Your task to perform on an android device: turn off translation in the chrome app Image 0: 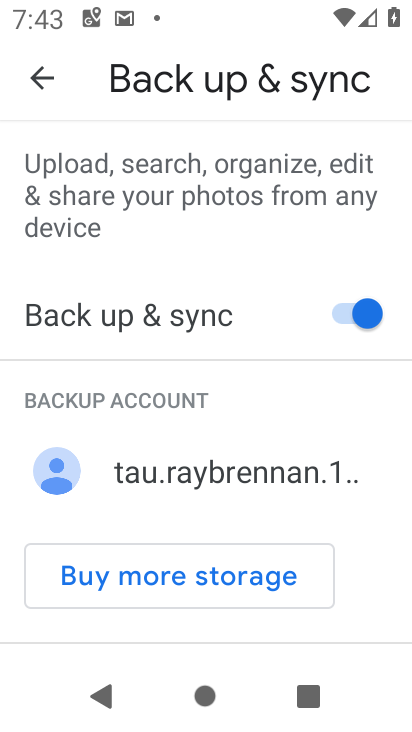
Step 0: press home button
Your task to perform on an android device: turn off translation in the chrome app Image 1: 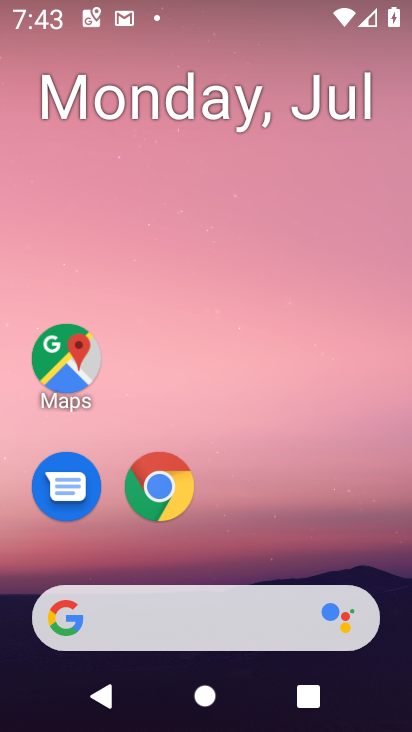
Step 1: drag from (385, 548) to (385, 126)
Your task to perform on an android device: turn off translation in the chrome app Image 2: 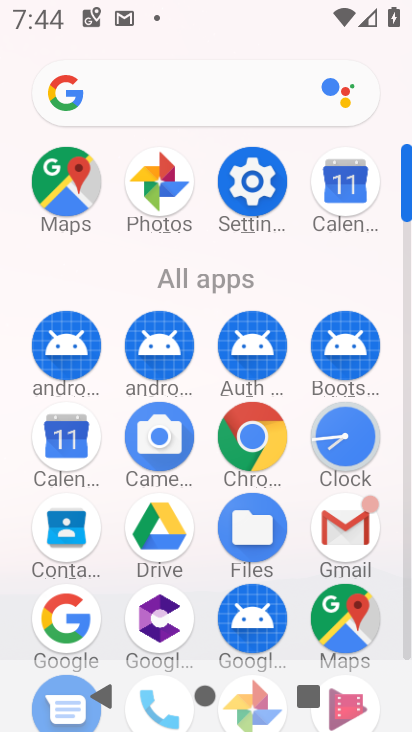
Step 2: click (255, 426)
Your task to perform on an android device: turn off translation in the chrome app Image 3: 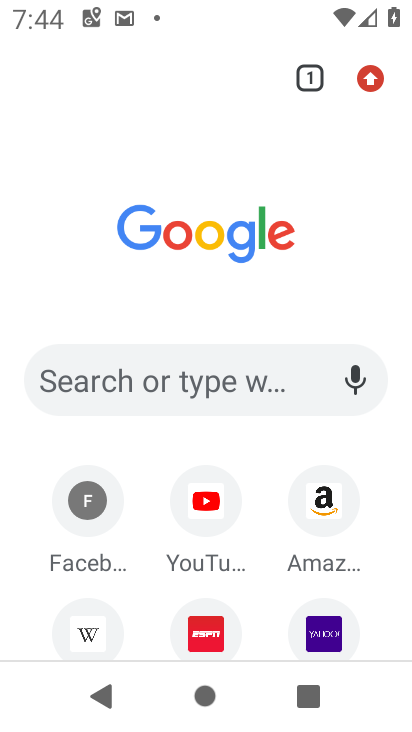
Step 3: click (367, 84)
Your task to perform on an android device: turn off translation in the chrome app Image 4: 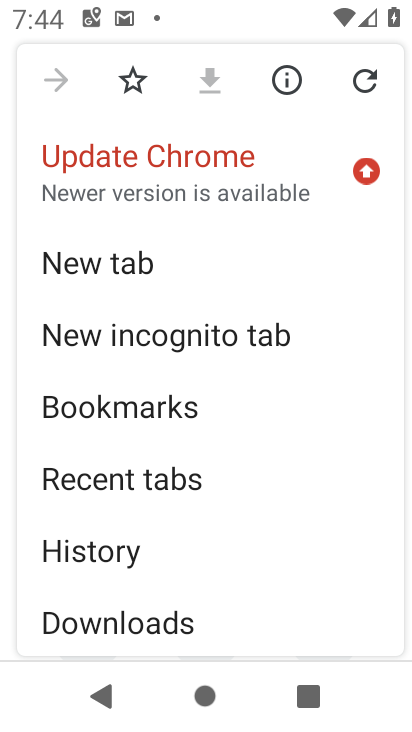
Step 4: drag from (336, 398) to (335, 324)
Your task to perform on an android device: turn off translation in the chrome app Image 5: 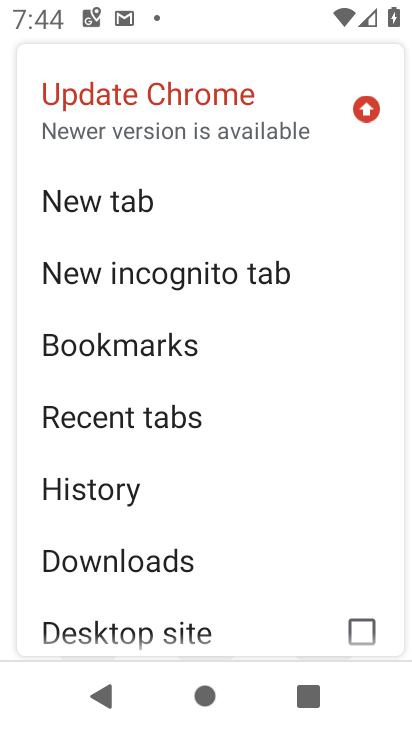
Step 5: drag from (327, 414) to (334, 313)
Your task to perform on an android device: turn off translation in the chrome app Image 6: 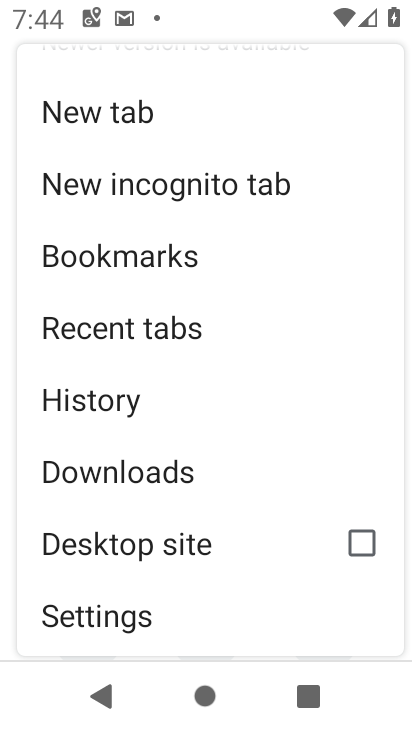
Step 6: drag from (326, 397) to (331, 264)
Your task to perform on an android device: turn off translation in the chrome app Image 7: 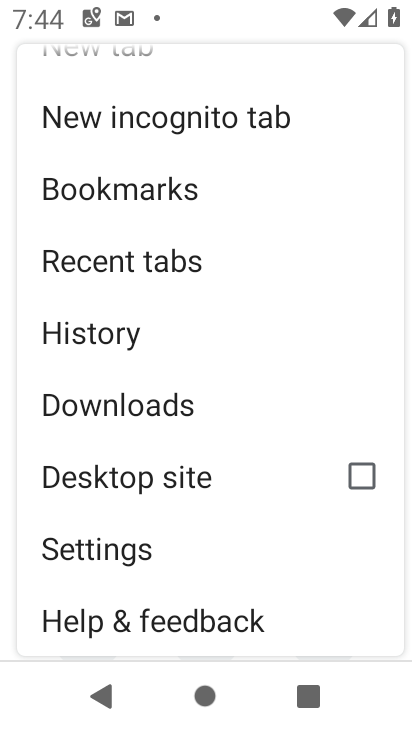
Step 7: click (271, 554)
Your task to perform on an android device: turn off translation in the chrome app Image 8: 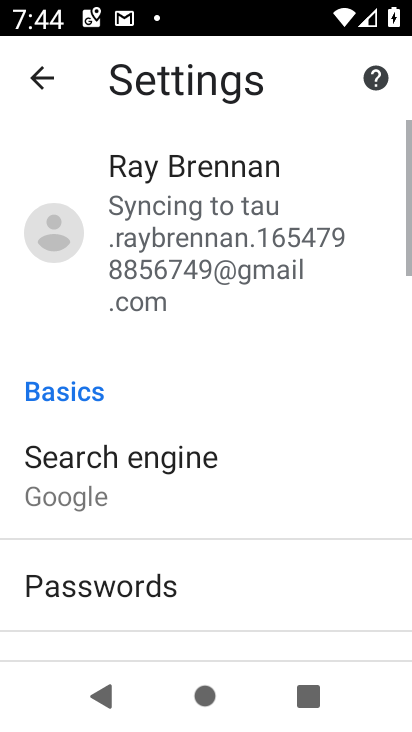
Step 8: drag from (290, 518) to (291, 457)
Your task to perform on an android device: turn off translation in the chrome app Image 9: 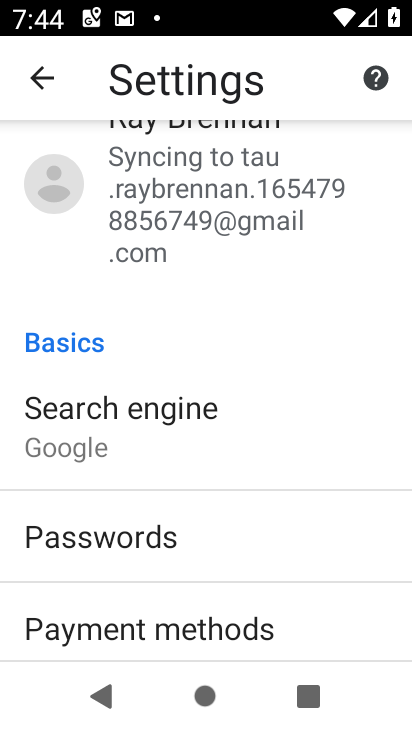
Step 9: drag from (303, 502) to (308, 425)
Your task to perform on an android device: turn off translation in the chrome app Image 10: 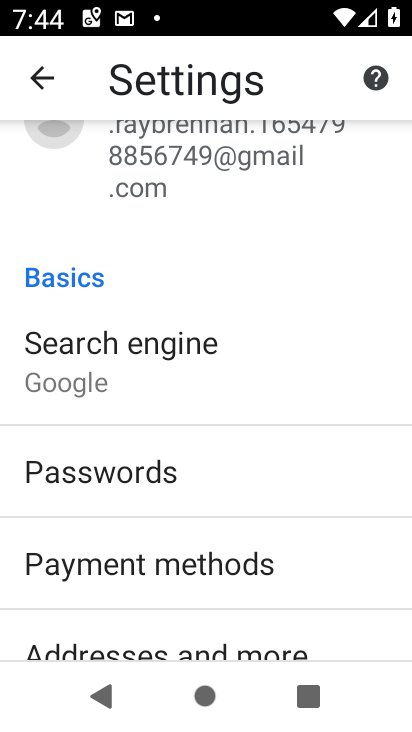
Step 10: drag from (343, 486) to (354, 401)
Your task to perform on an android device: turn off translation in the chrome app Image 11: 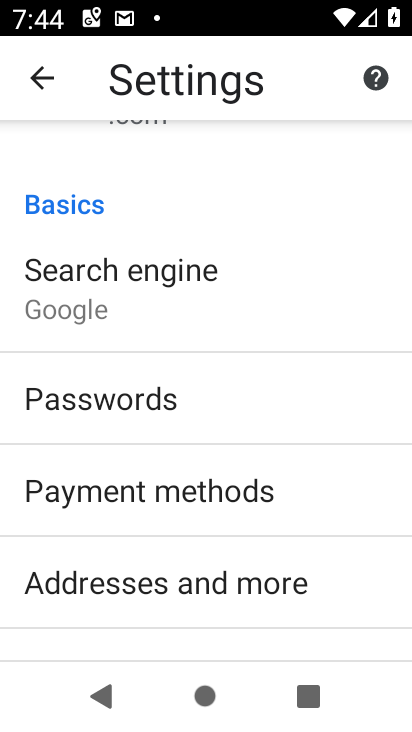
Step 11: drag from (360, 479) to (369, 405)
Your task to perform on an android device: turn off translation in the chrome app Image 12: 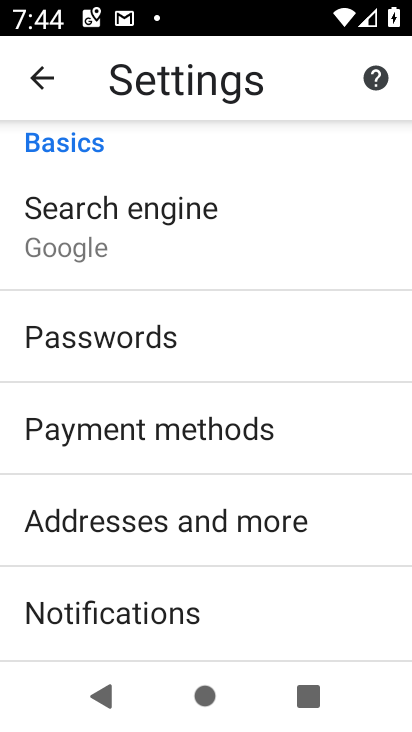
Step 12: drag from (364, 469) to (364, 375)
Your task to perform on an android device: turn off translation in the chrome app Image 13: 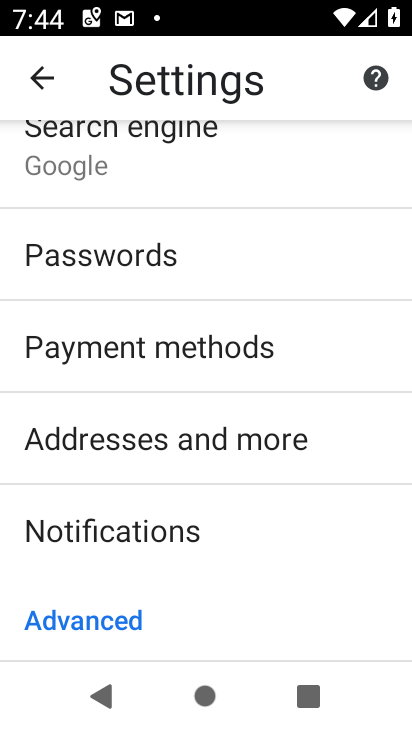
Step 13: drag from (355, 444) to (355, 349)
Your task to perform on an android device: turn off translation in the chrome app Image 14: 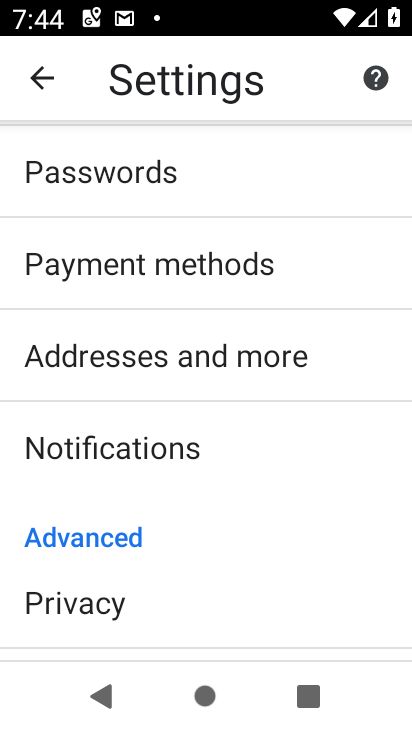
Step 14: drag from (349, 451) to (361, 361)
Your task to perform on an android device: turn off translation in the chrome app Image 15: 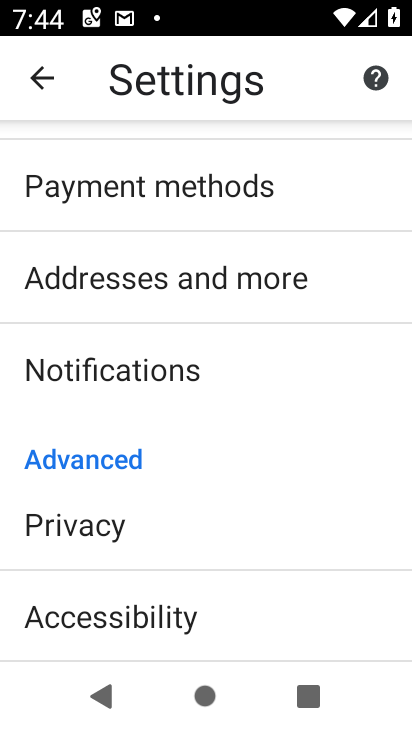
Step 15: drag from (345, 448) to (344, 302)
Your task to perform on an android device: turn off translation in the chrome app Image 16: 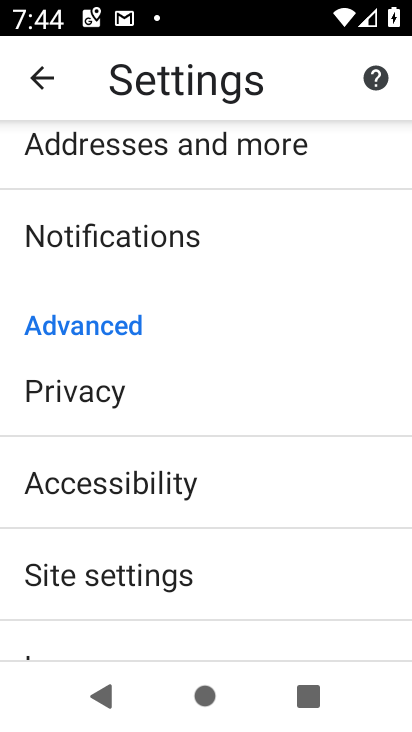
Step 16: drag from (325, 467) to (355, 248)
Your task to perform on an android device: turn off translation in the chrome app Image 17: 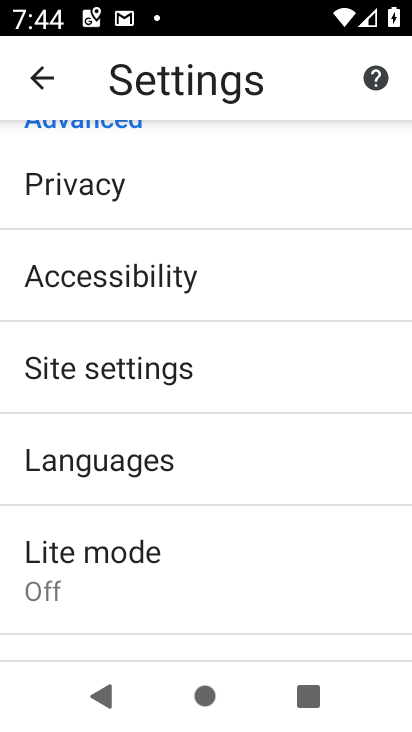
Step 17: click (341, 481)
Your task to perform on an android device: turn off translation in the chrome app Image 18: 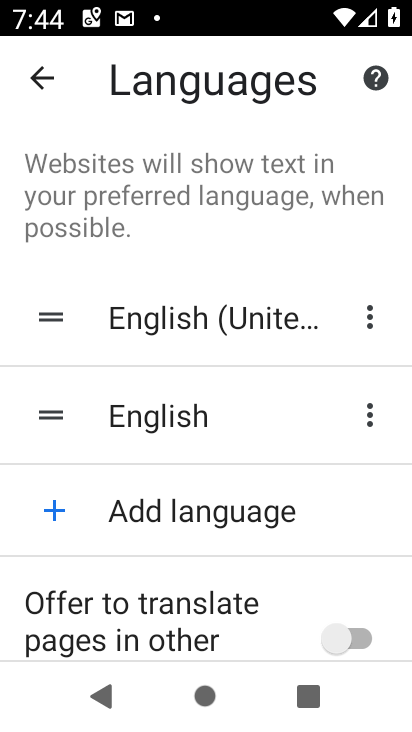
Step 18: task complete